Your task to perform on an android device: check google app version Image 0: 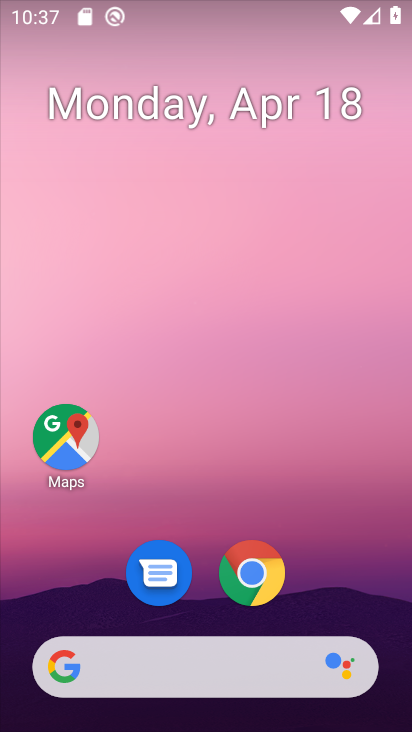
Step 0: drag from (311, 536) to (266, 91)
Your task to perform on an android device: check google app version Image 1: 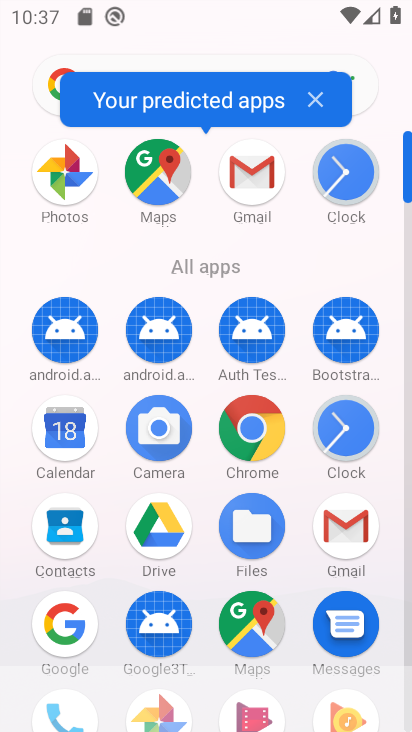
Step 1: click (60, 629)
Your task to perform on an android device: check google app version Image 2: 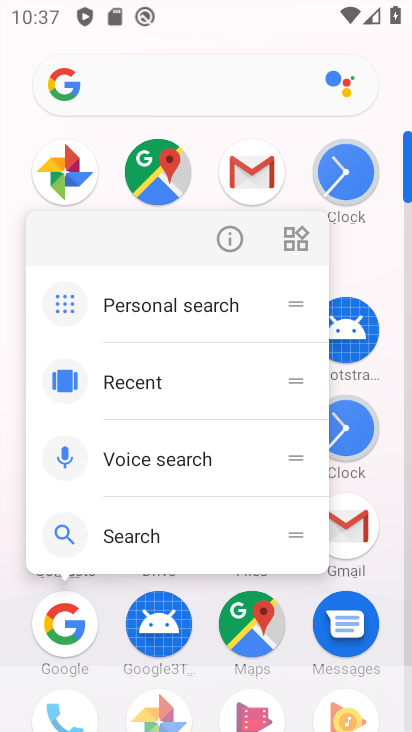
Step 2: click (72, 636)
Your task to perform on an android device: check google app version Image 3: 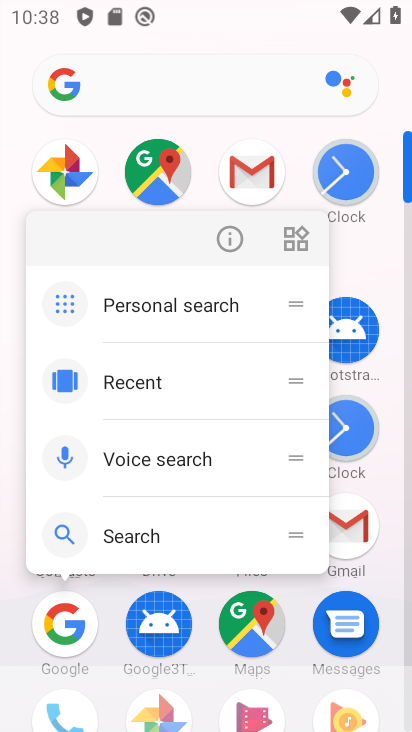
Step 3: click (62, 633)
Your task to perform on an android device: check google app version Image 4: 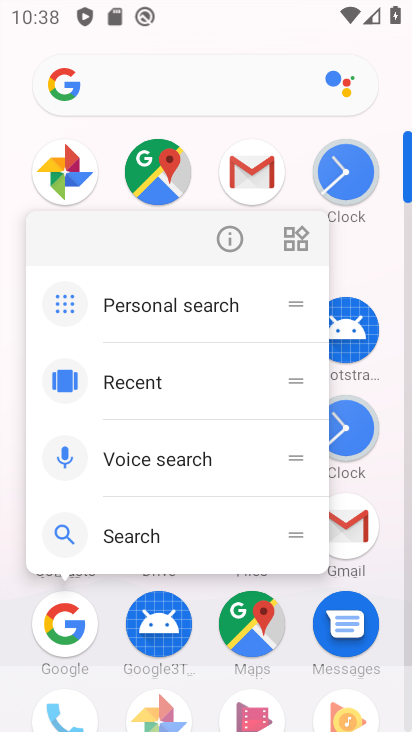
Step 4: click (62, 633)
Your task to perform on an android device: check google app version Image 5: 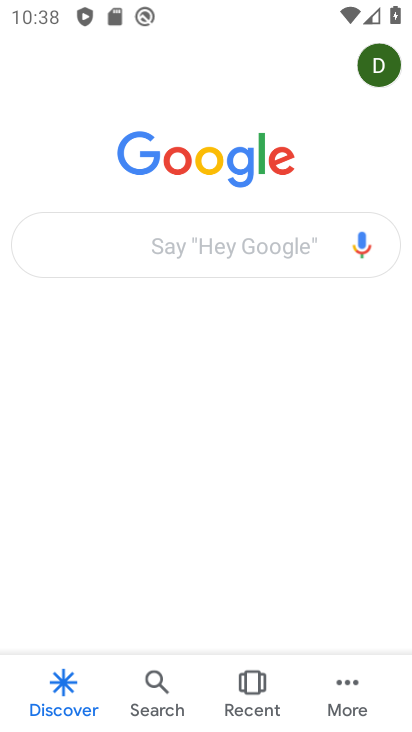
Step 5: click (337, 680)
Your task to perform on an android device: check google app version Image 6: 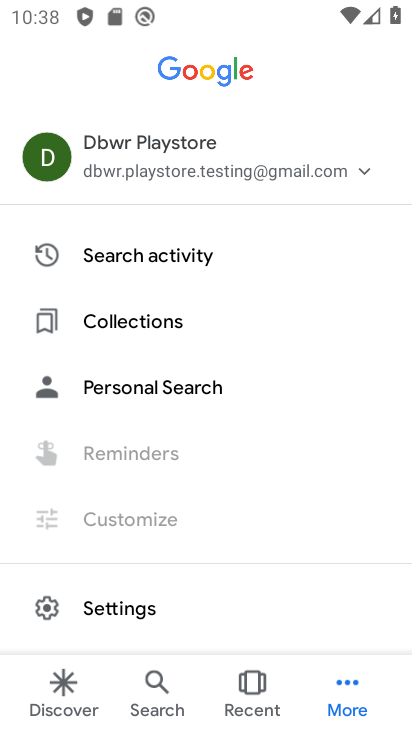
Step 6: click (98, 610)
Your task to perform on an android device: check google app version Image 7: 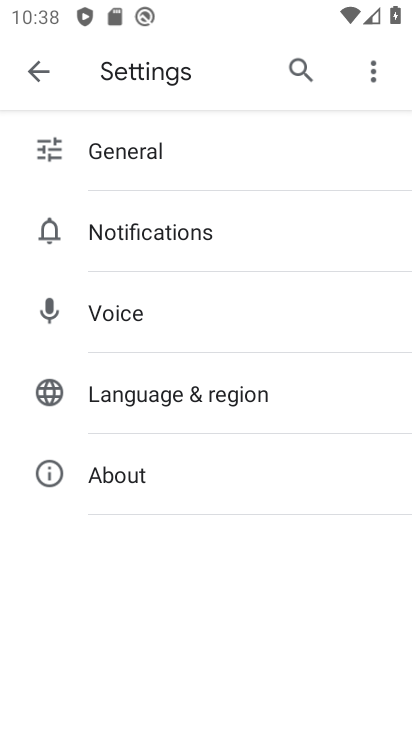
Step 7: click (111, 479)
Your task to perform on an android device: check google app version Image 8: 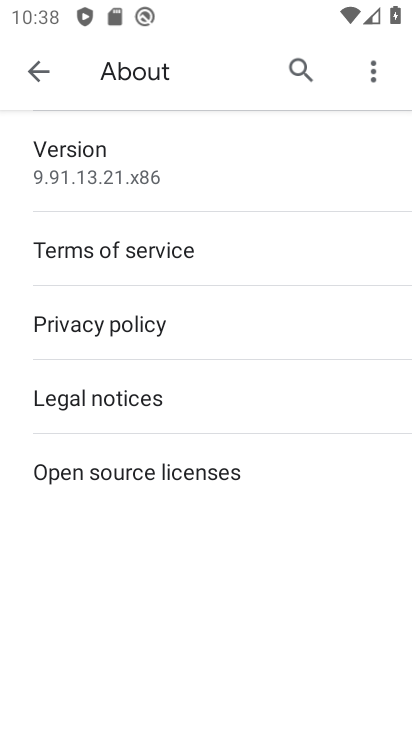
Step 8: click (91, 171)
Your task to perform on an android device: check google app version Image 9: 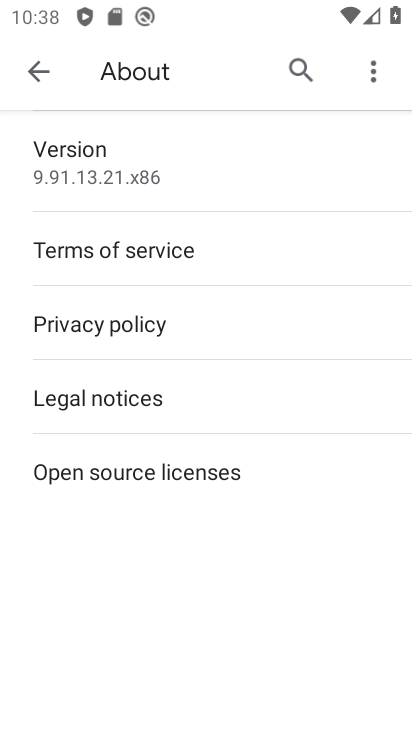
Step 9: task complete